Your task to perform on an android device: Go to calendar. Show me events next week Image 0: 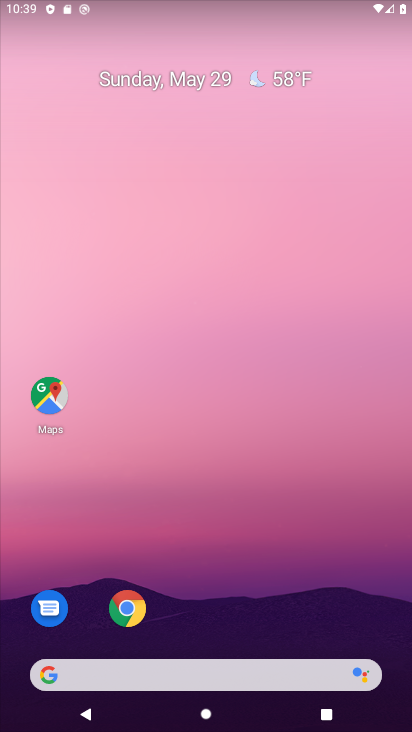
Step 0: click (247, 249)
Your task to perform on an android device: Go to calendar. Show me events next week Image 1: 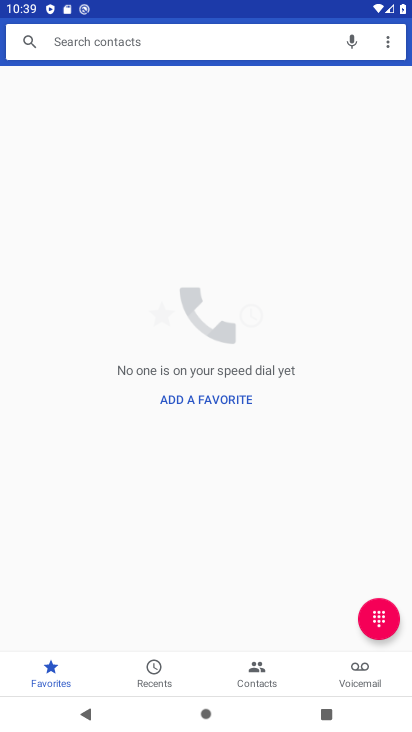
Step 1: press home button
Your task to perform on an android device: Go to calendar. Show me events next week Image 2: 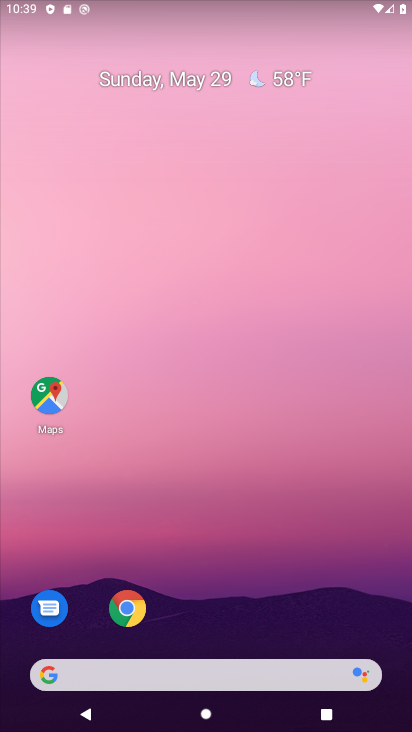
Step 2: drag from (177, 642) to (238, 264)
Your task to perform on an android device: Go to calendar. Show me events next week Image 3: 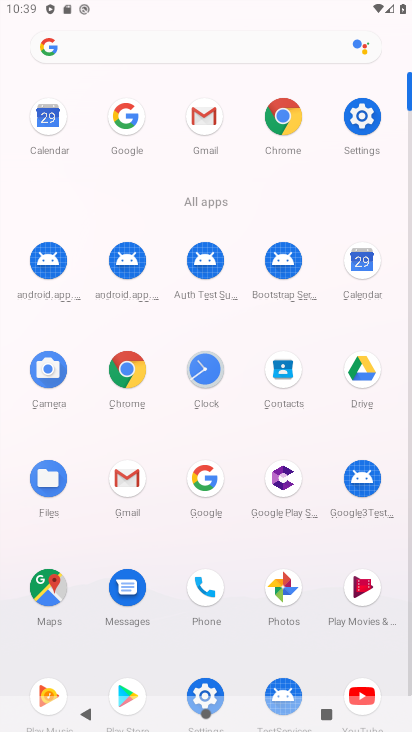
Step 3: click (45, 123)
Your task to perform on an android device: Go to calendar. Show me events next week Image 4: 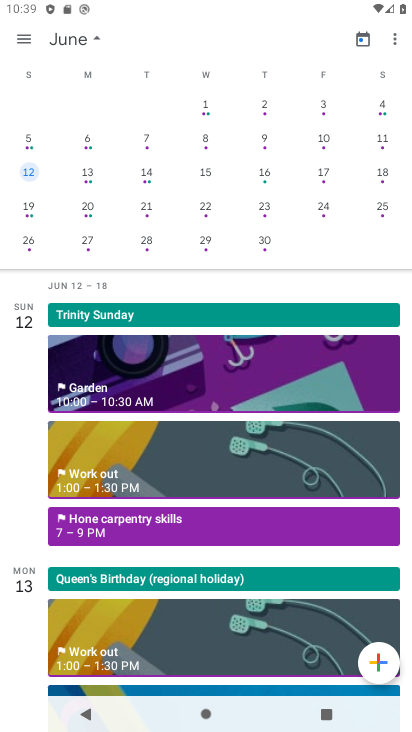
Step 4: click (34, 137)
Your task to perform on an android device: Go to calendar. Show me events next week Image 5: 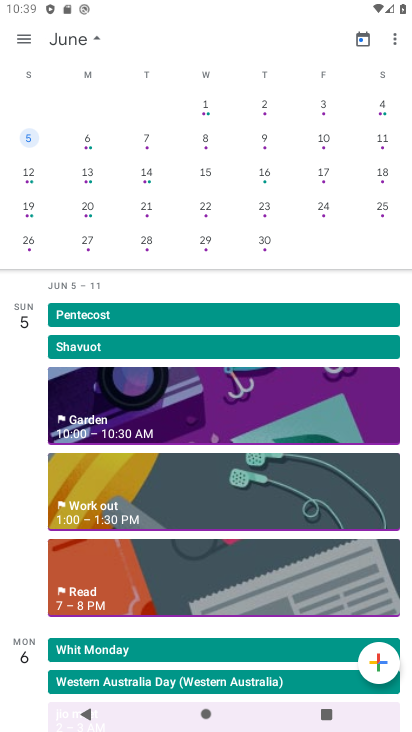
Step 5: click (127, 672)
Your task to perform on an android device: Go to calendar. Show me events next week Image 6: 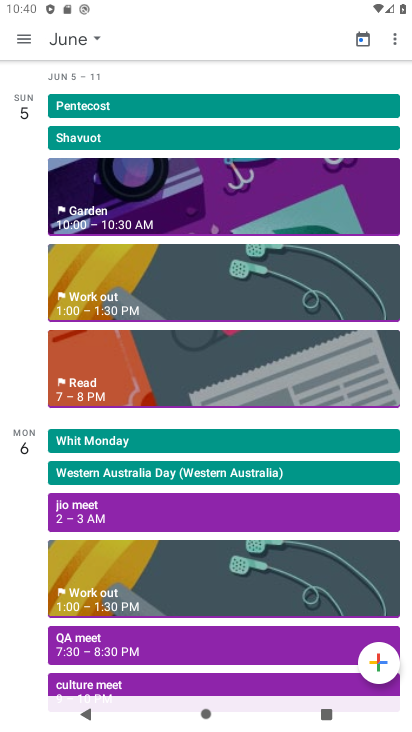
Step 6: click (109, 503)
Your task to perform on an android device: Go to calendar. Show me events next week Image 7: 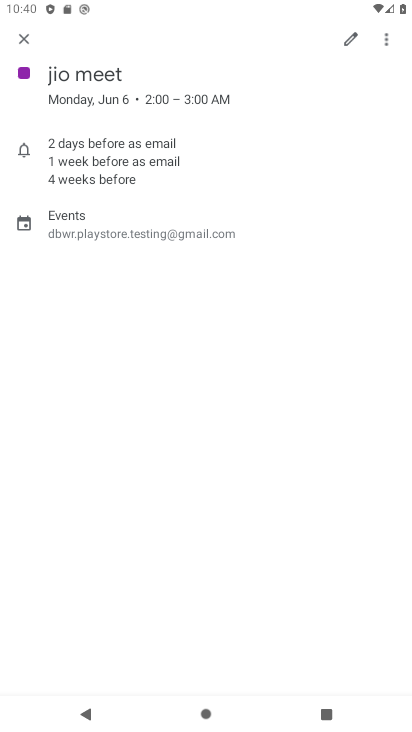
Step 7: task complete